Your task to perform on an android device: add a label to a message in the gmail app Image 0: 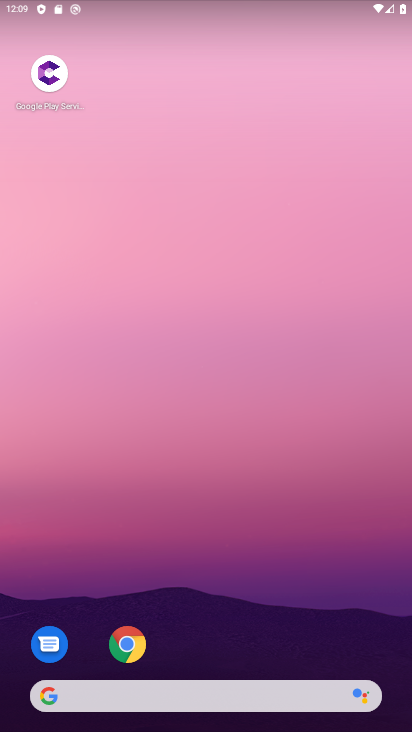
Step 0: drag from (351, 634) to (165, 36)
Your task to perform on an android device: add a label to a message in the gmail app Image 1: 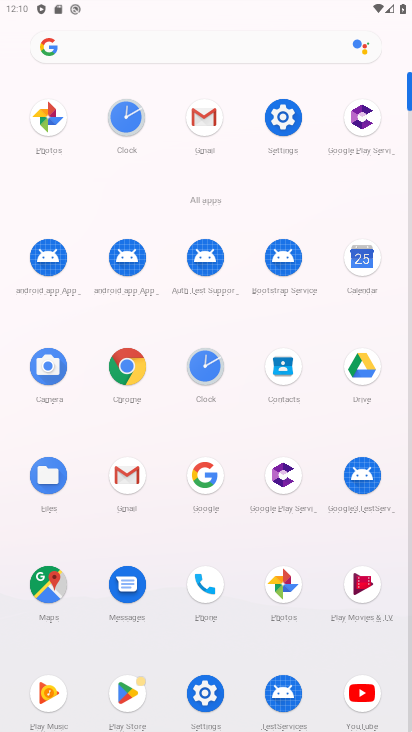
Step 1: click (126, 461)
Your task to perform on an android device: add a label to a message in the gmail app Image 2: 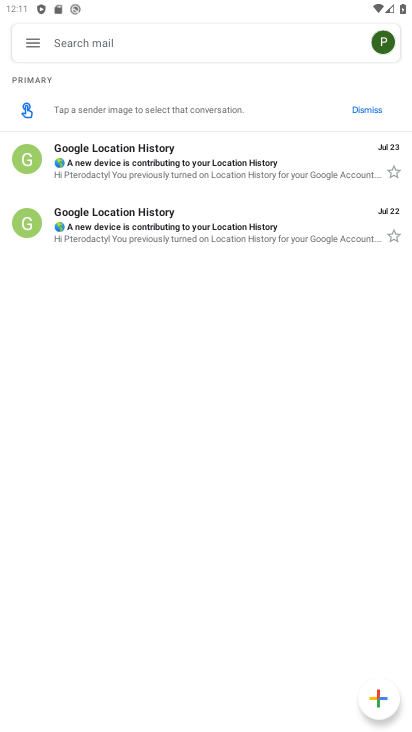
Step 2: task complete